Your task to perform on an android device: Show me productivity apps on the Play Store Image 0: 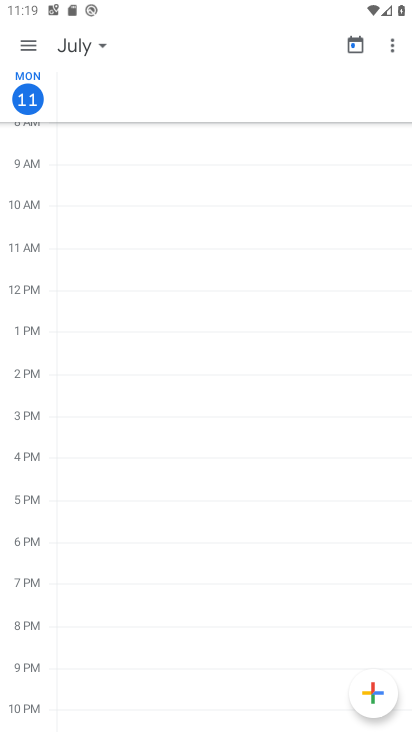
Step 0: press home button
Your task to perform on an android device: Show me productivity apps on the Play Store Image 1: 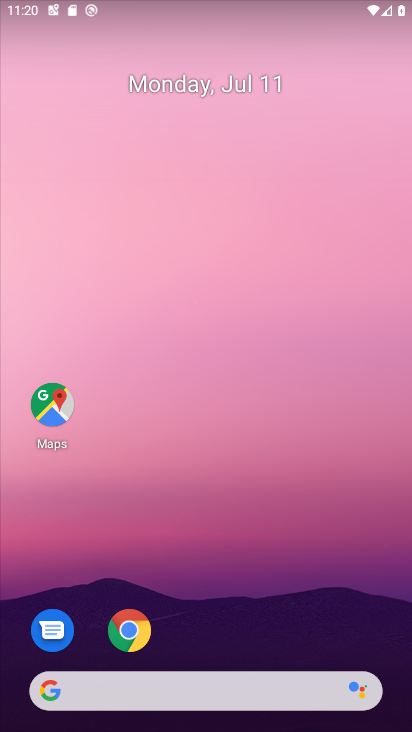
Step 1: drag from (256, 642) to (228, 10)
Your task to perform on an android device: Show me productivity apps on the Play Store Image 2: 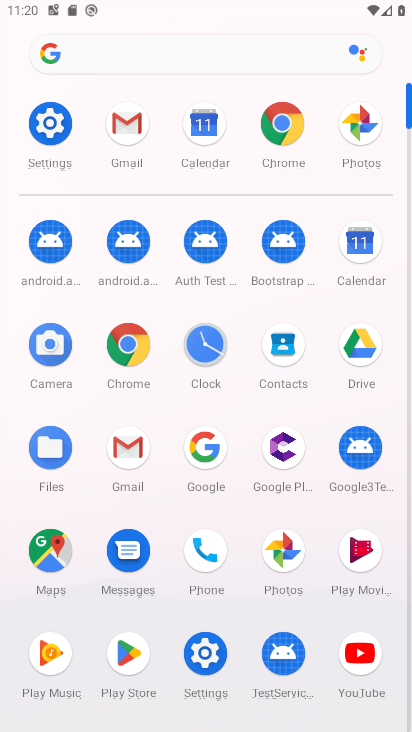
Step 2: click (205, 655)
Your task to perform on an android device: Show me productivity apps on the Play Store Image 3: 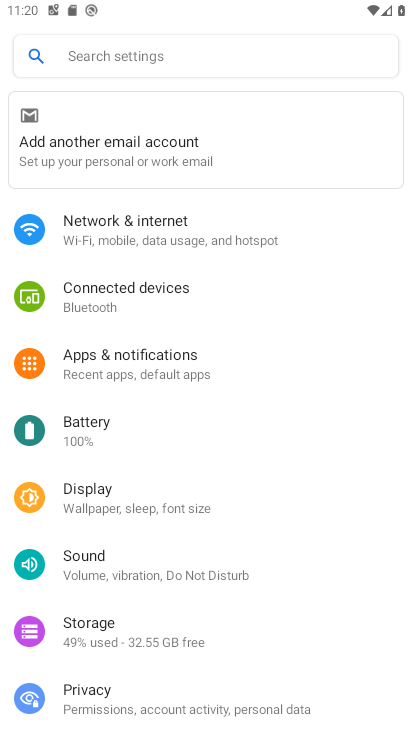
Step 3: press home button
Your task to perform on an android device: Show me productivity apps on the Play Store Image 4: 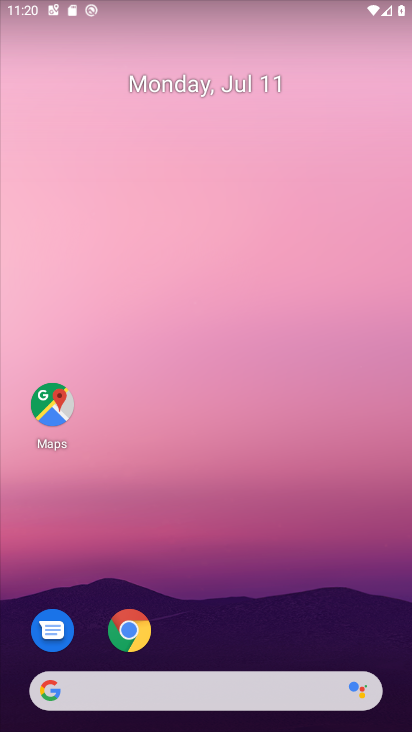
Step 4: drag from (180, 648) to (260, 1)
Your task to perform on an android device: Show me productivity apps on the Play Store Image 5: 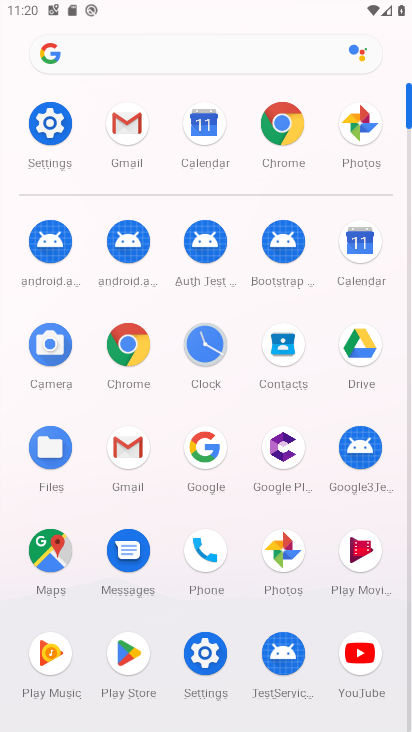
Step 5: click (130, 657)
Your task to perform on an android device: Show me productivity apps on the Play Store Image 6: 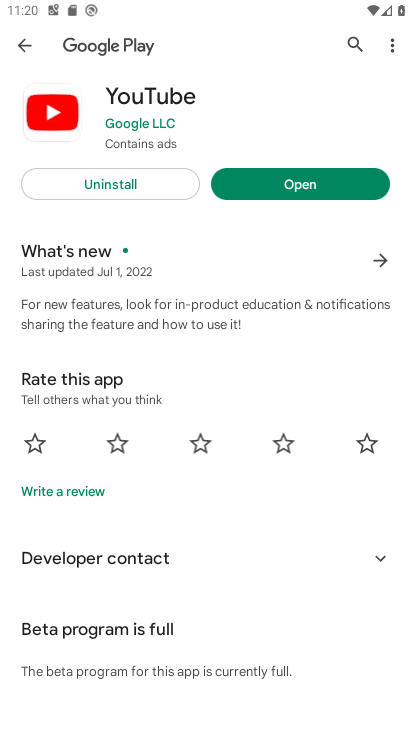
Step 6: click (19, 40)
Your task to perform on an android device: Show me productivity apps on the Play Store Image 7: 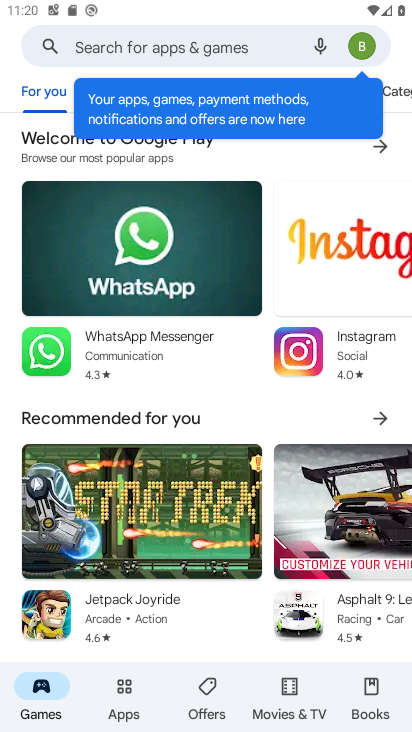
Step 7: click (124, 691)
Your task to perform on an android device: Show me productivity apps on the Play Store Image 8: 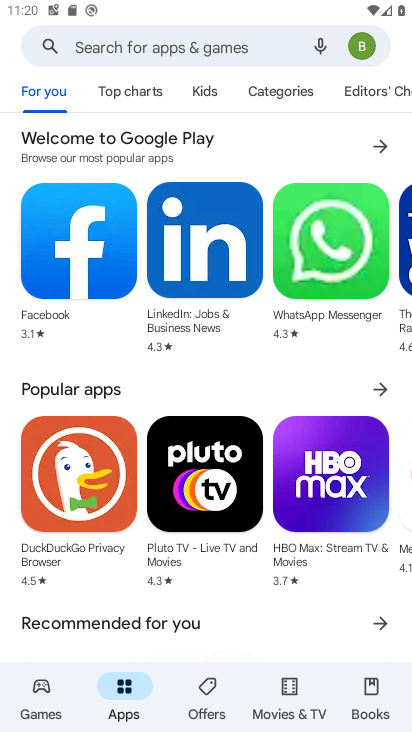
Step 8: click (276, 86)
Your task to perform on an android device: Show me productivity apps on the Play Store Image 9: 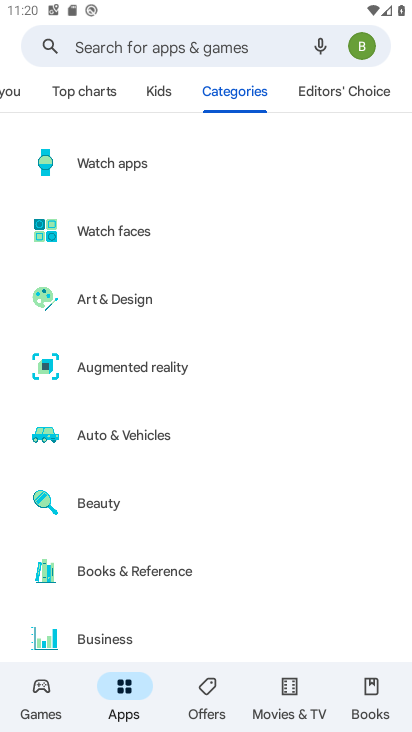
Step 9: drag from (163, 579) to (192, 44)
Your task to perform on an android device: Show me productivity apps on the Play Store Image 10: 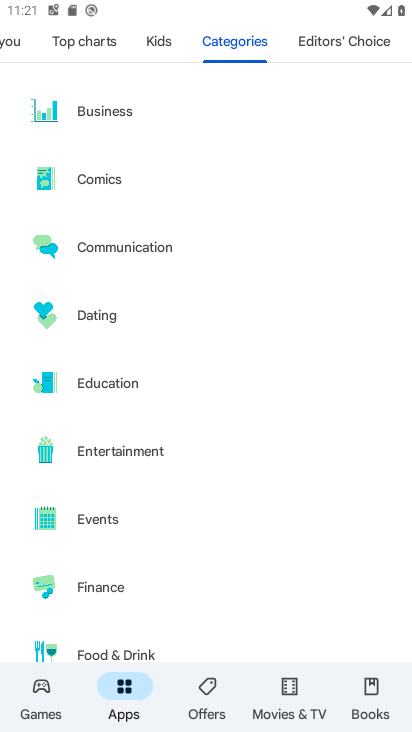
Step 10: drag from (142, 578) to (138, 6)
Your task to perform on an android device: Show me productivity apps on the Play Store Image 11: 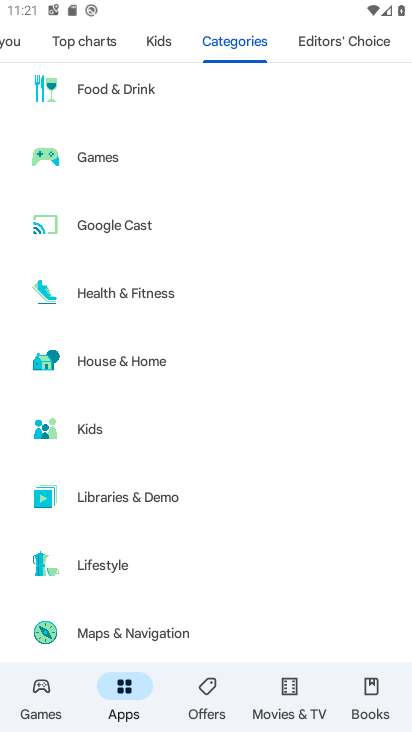
Step 11: drag from (136, 620) to (125, 73)
Your task to perform on an android device: Show me productivity apps on the Play Store Image 12: 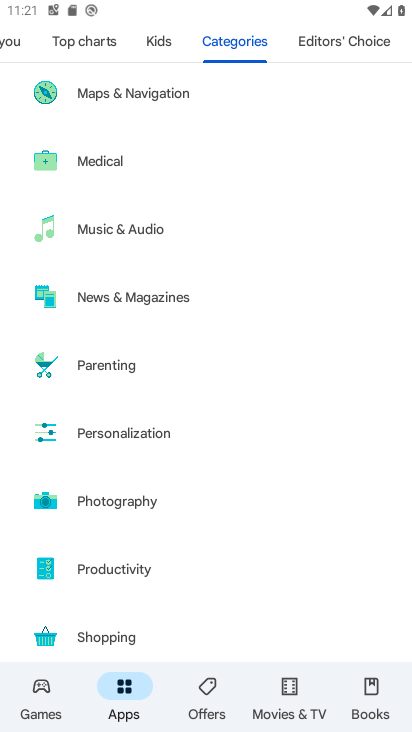
Step 12: click (133, 579)
Your task to perform on an android device: Show me productivity apps on the Play Store Image 13: 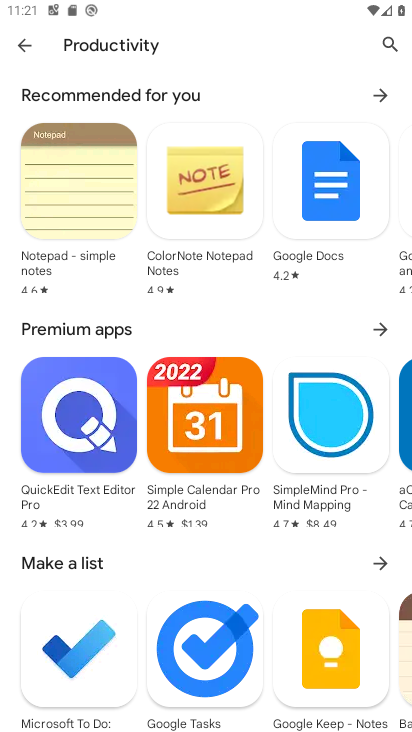
Step 13: task complete